Your task to perform on an android device: Add asus zenbook to the cart on bestbuy.com Image 0: 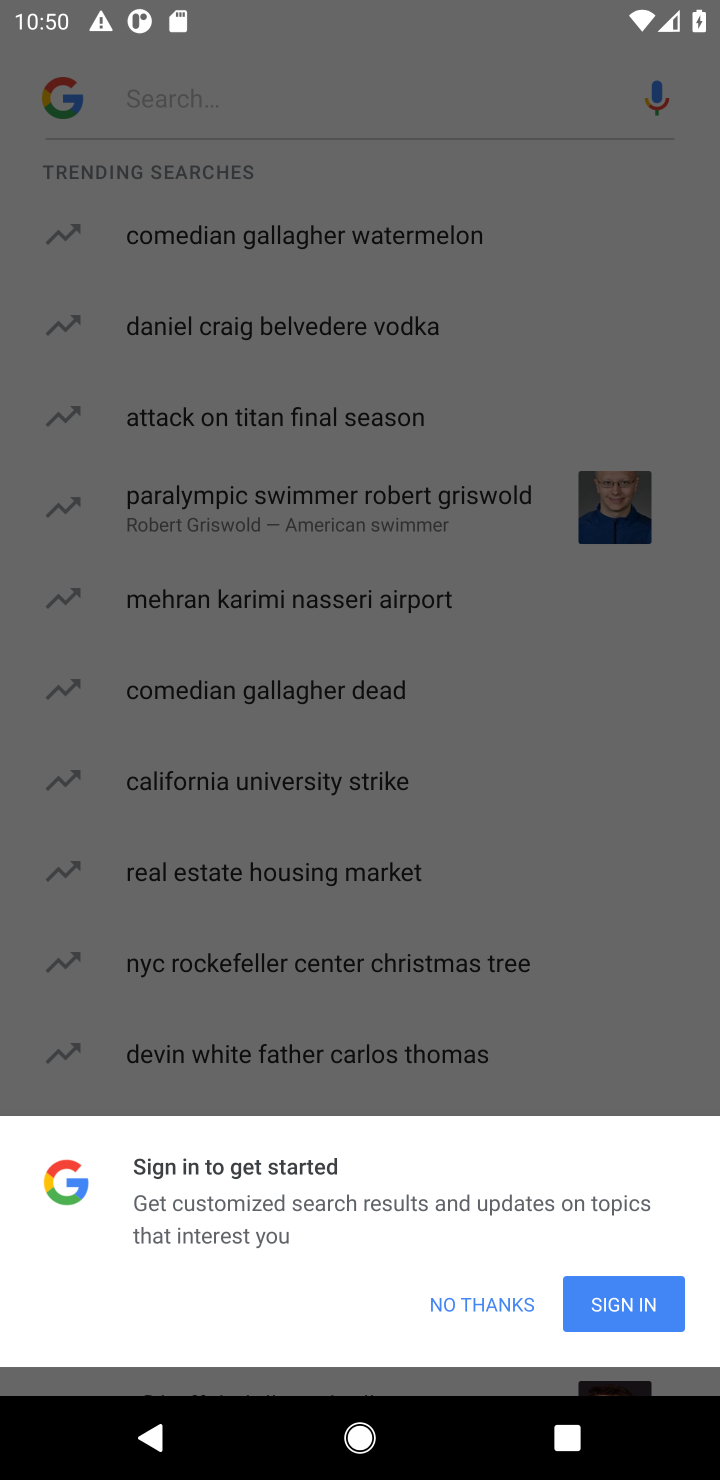
Step 0: press home button
Your task to perform on an android device: Add asus zenbook to the cart on bestbuy.com Image 1: 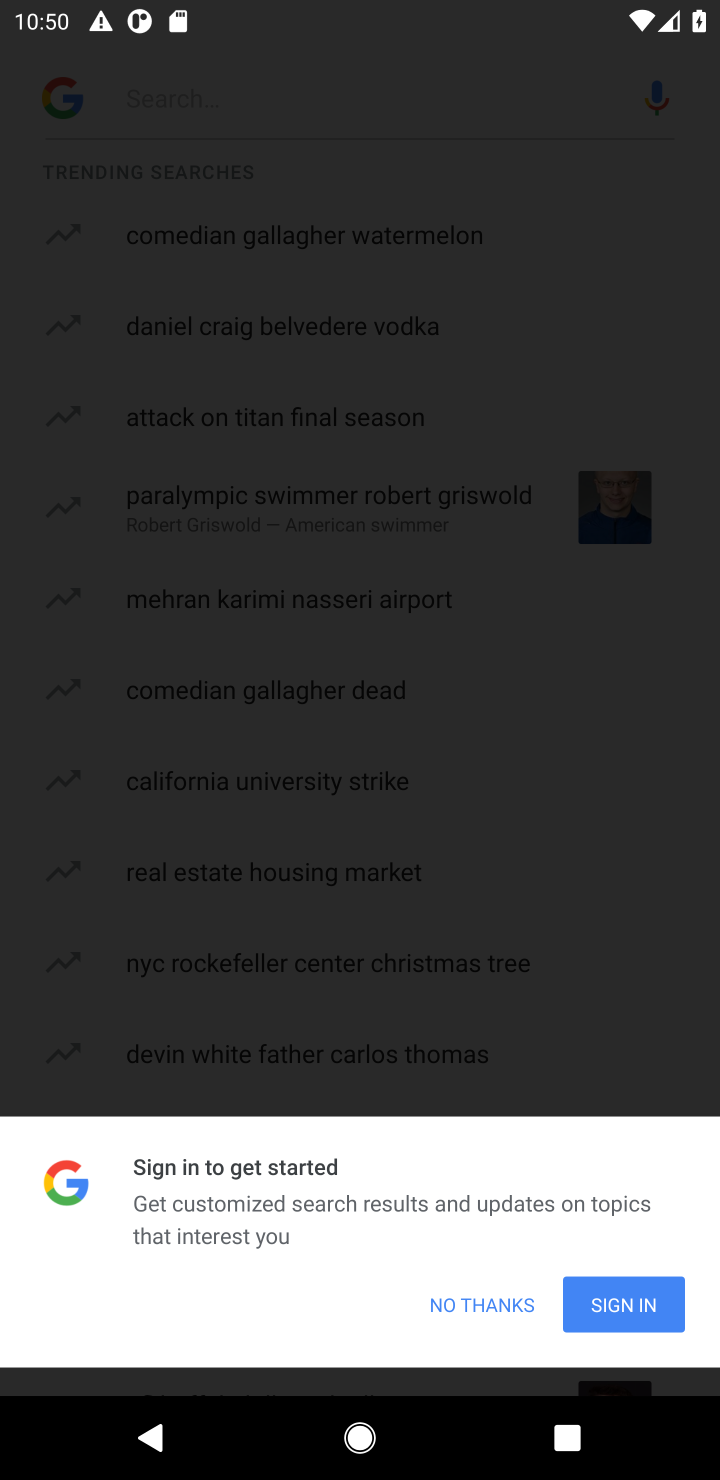
Step 1: press home button
Your task to perform on an android device: Add asus zenbook to the cart on bestbuy.com Image 2: 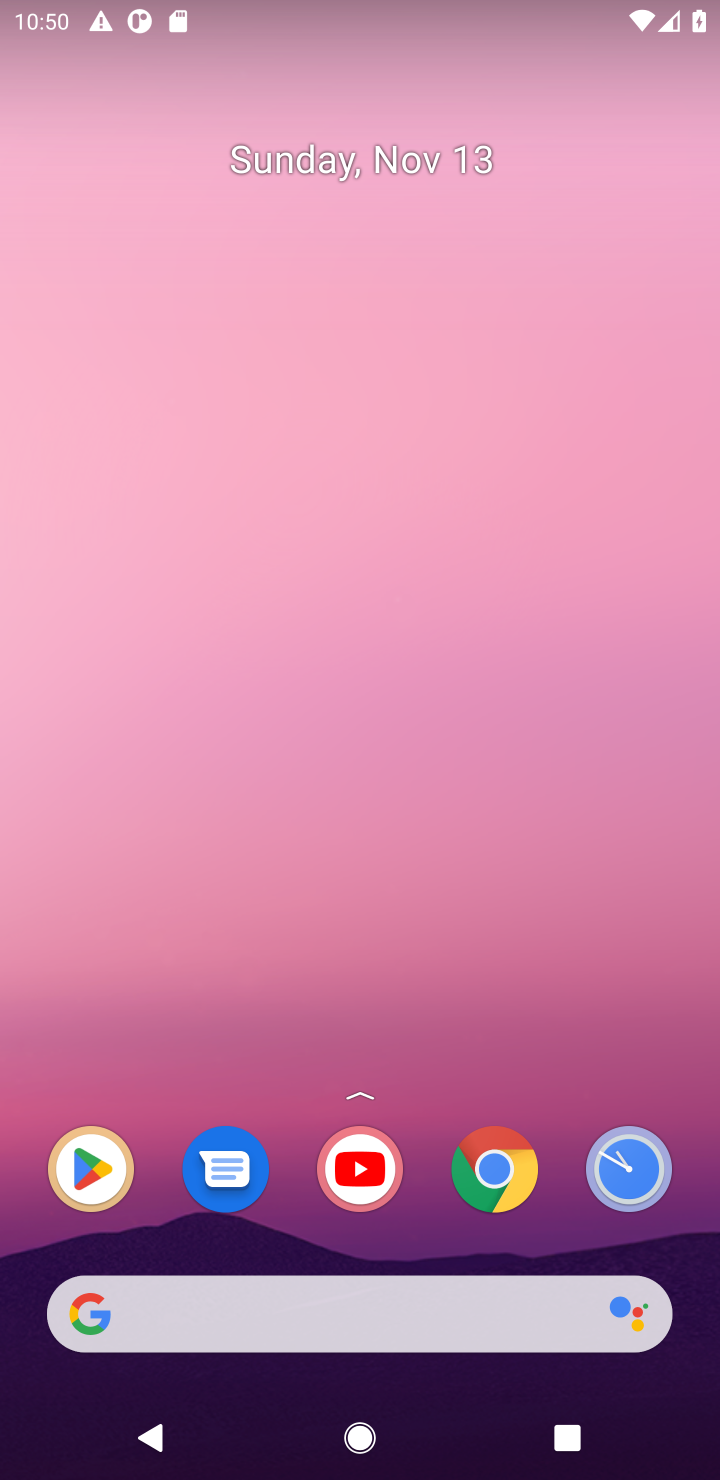
Step 2: drag from (429, 1244) to (357, 527)
Your task to perform on an android device: Add asus zenbook to the cart on bestbuy.com Image 3: 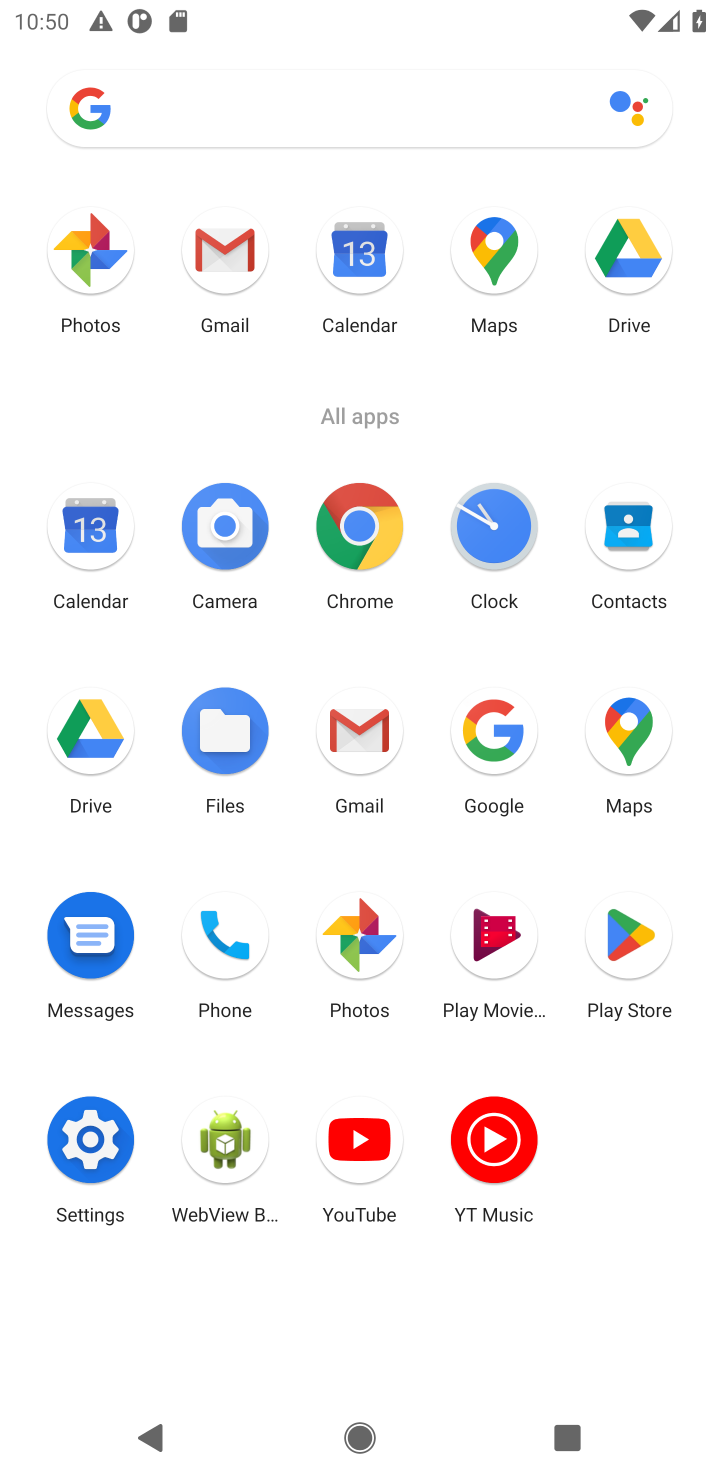
Step 3: click (365, 529)
Your task to perform on an android device: Add asus zenbook to the cart on bestbuy.com Image 4: 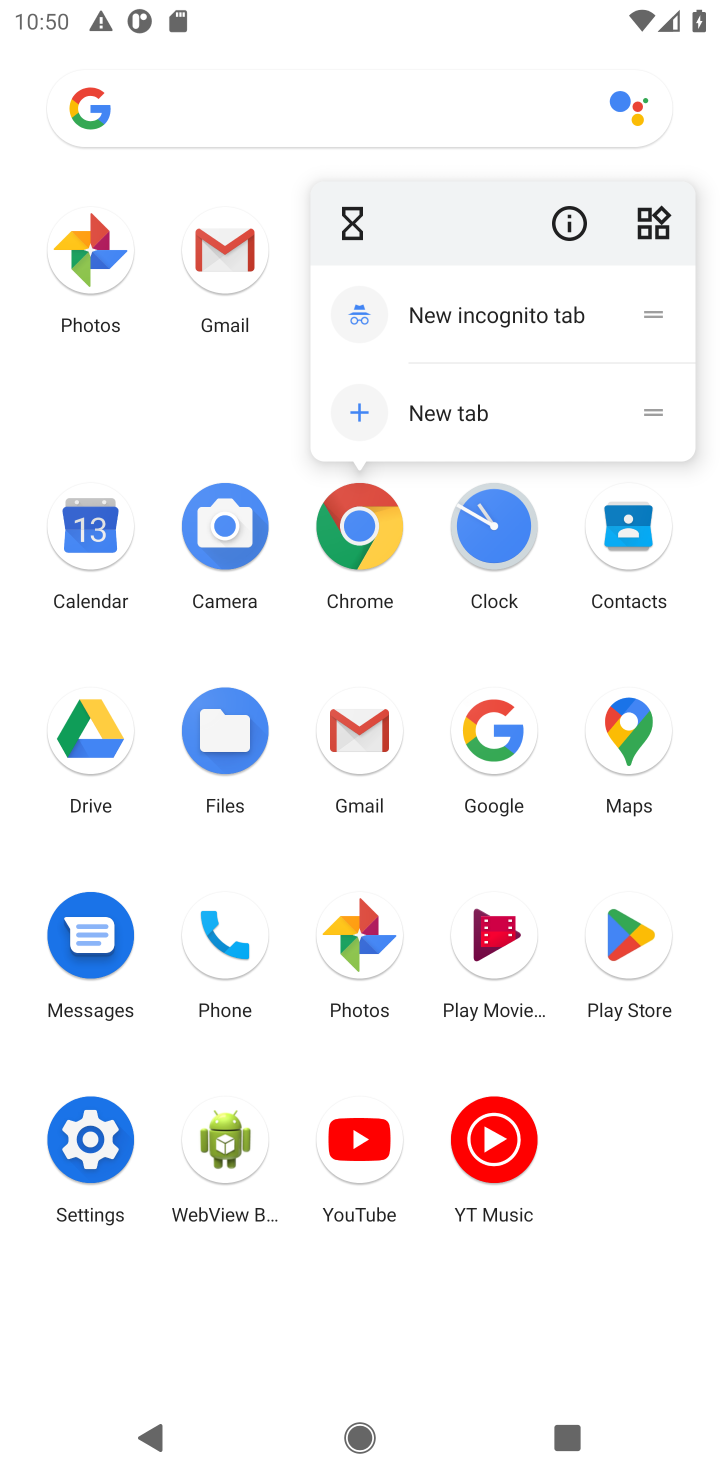
Step 4: click (360, 531)
Your task to perform on an android device: Add asus zenbook to the cart on bestbuy.com Image 5: 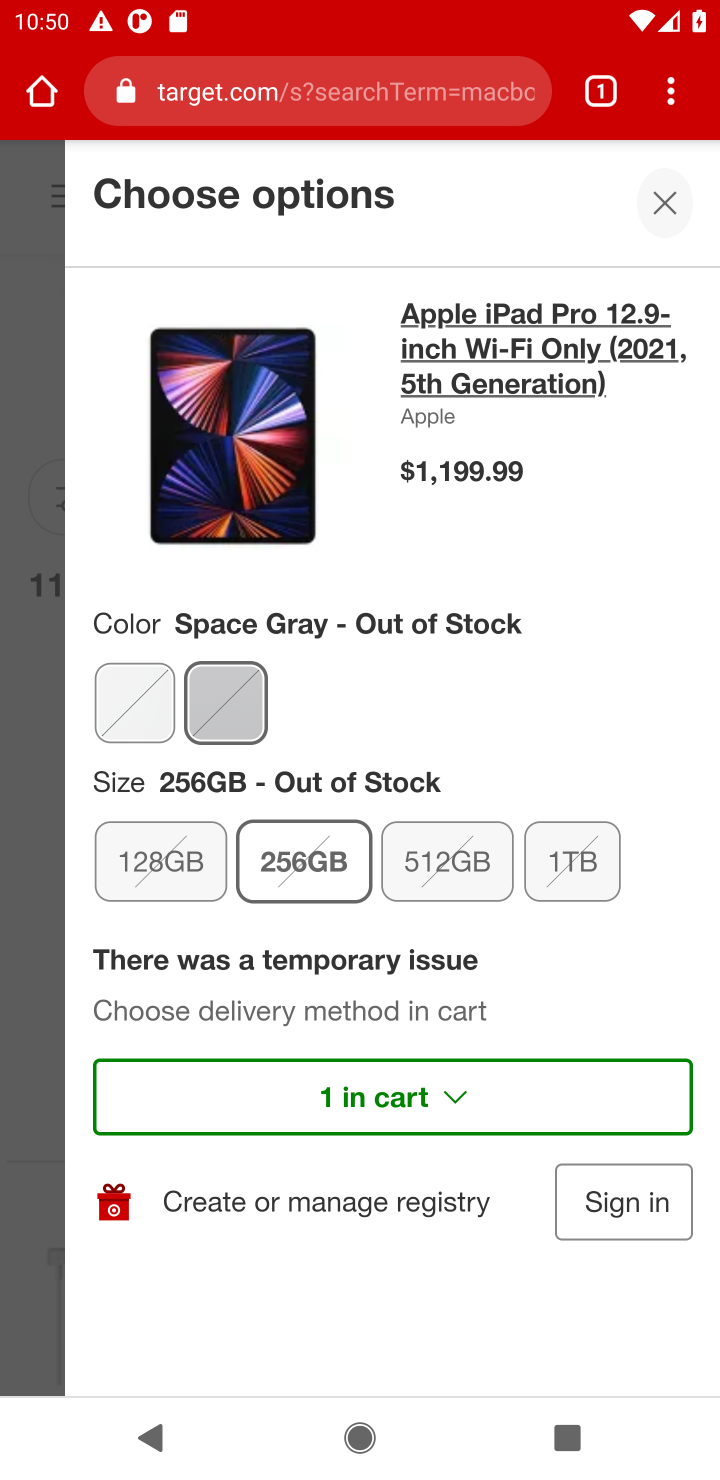
Step 5: click (366, 107)
Your task to perform on an android device: Add asus zenbook to the cart on bestbuy.com Image 6: 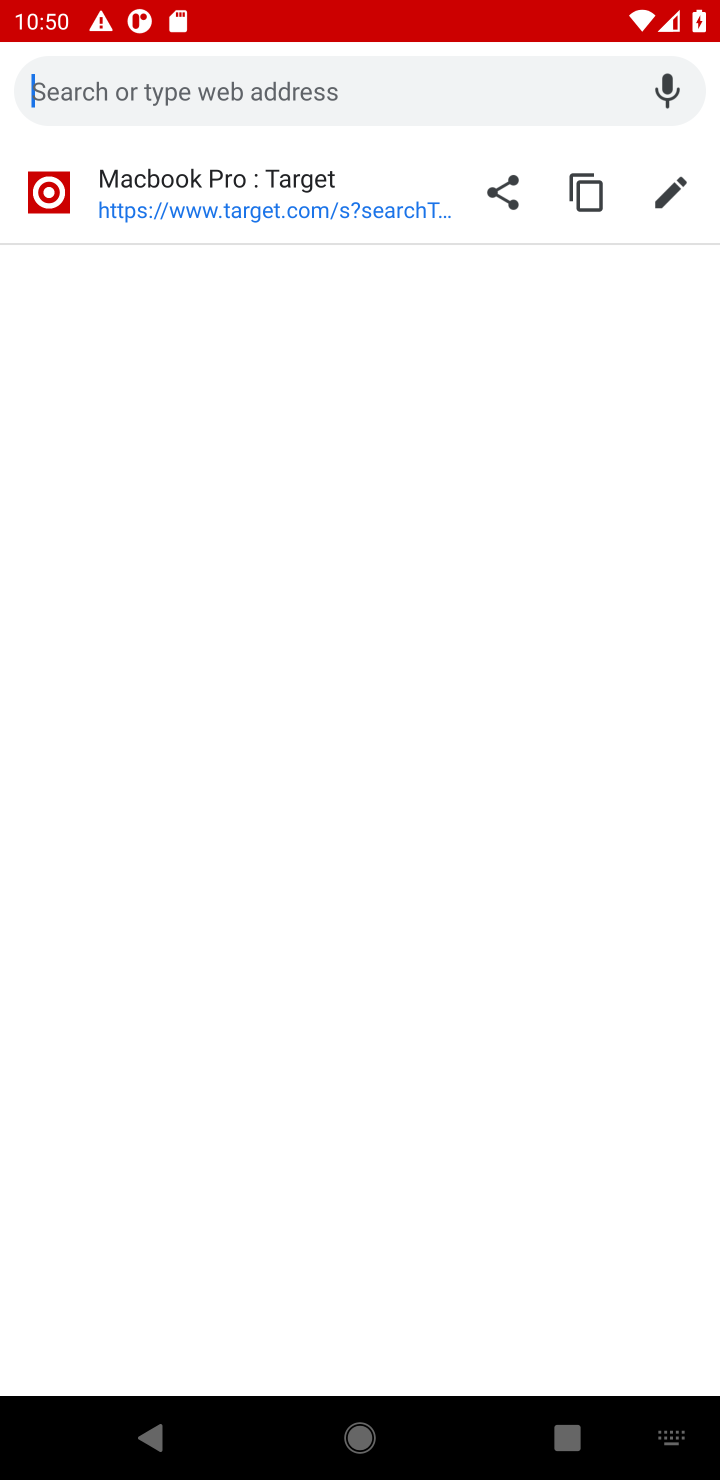
Step 6: type "bestbuy.com"
Your task to perform on an android device: Add asus zenbook to the cart on bestbuy.com Image 7: 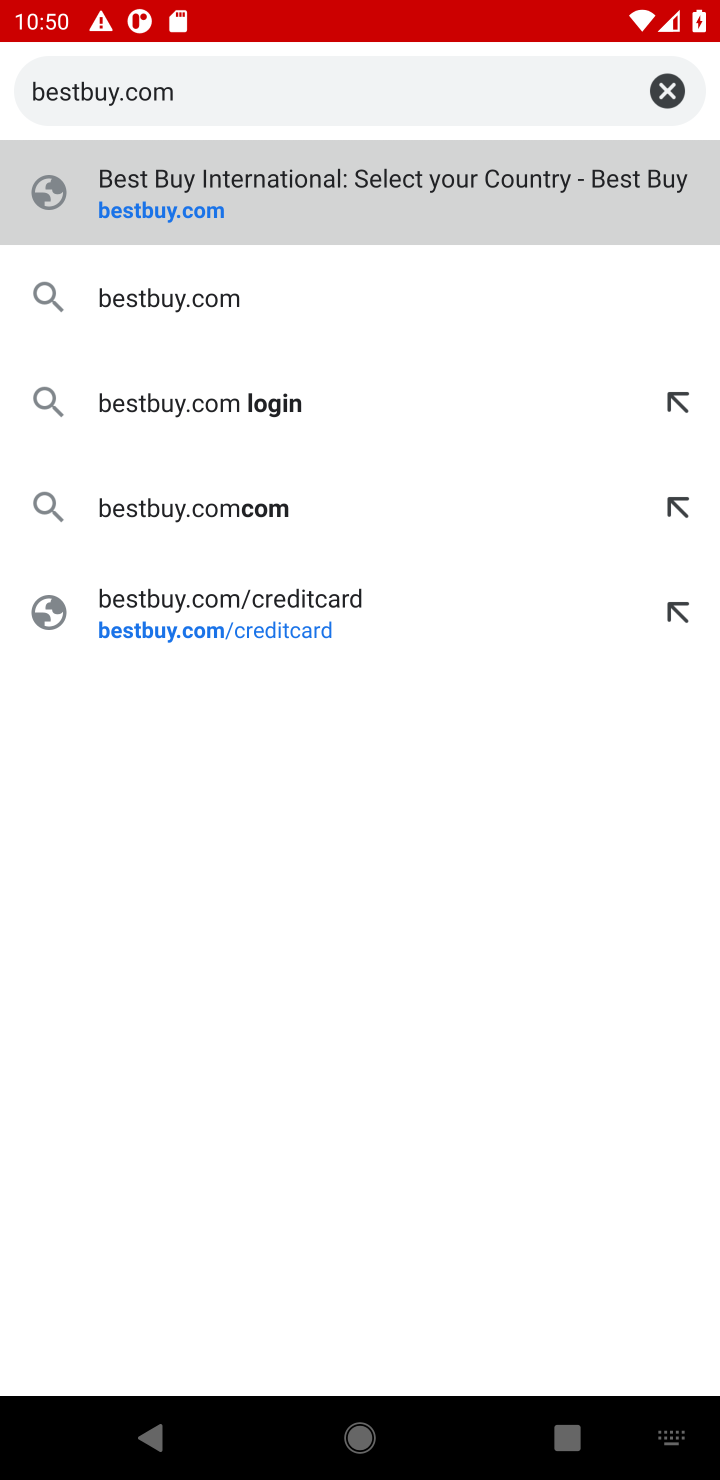
Step 7: press enter
Your task to perform on an android device: Add asus zenbook to the cart on bestbuy.com Image 8: 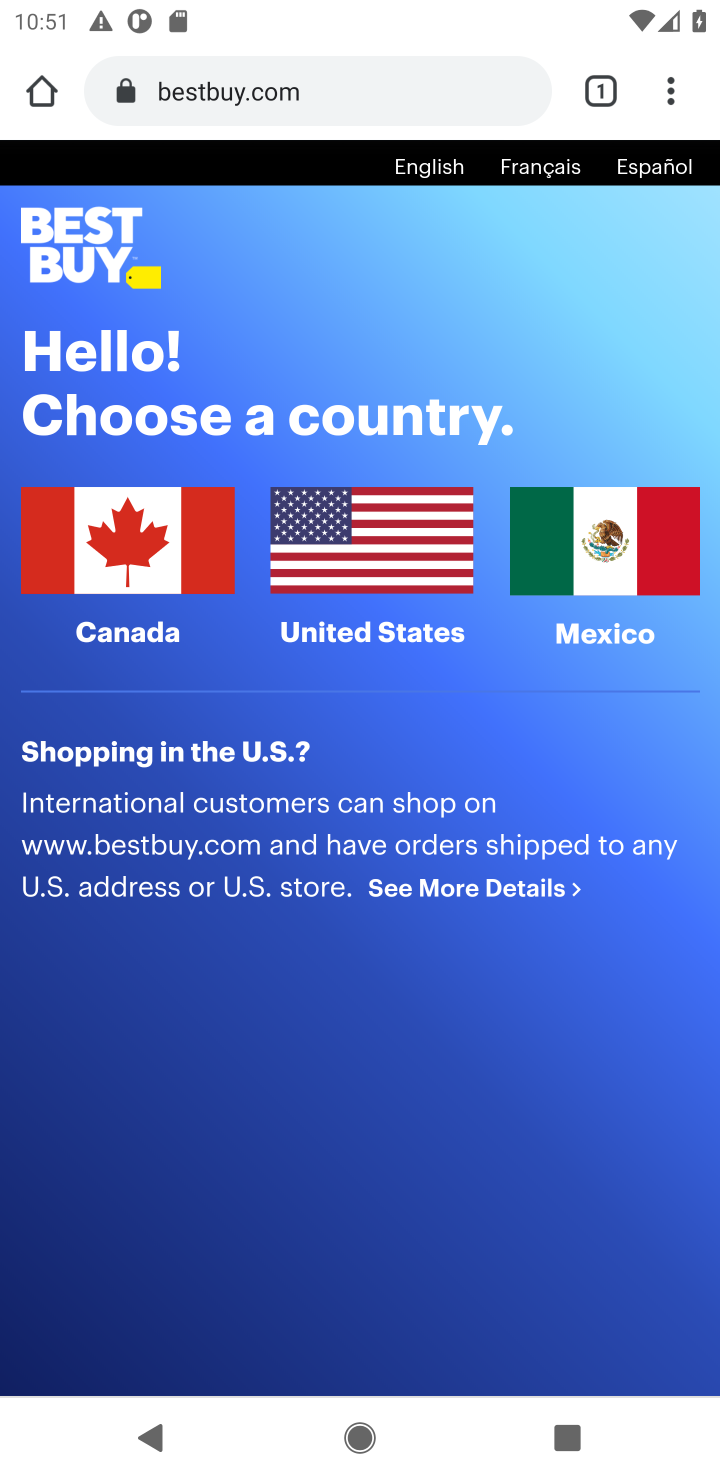
Step 8: click (73, 533)
Your task to perform on an android device: Add asus zenbook to the cart on bestbuy.com Image 9: 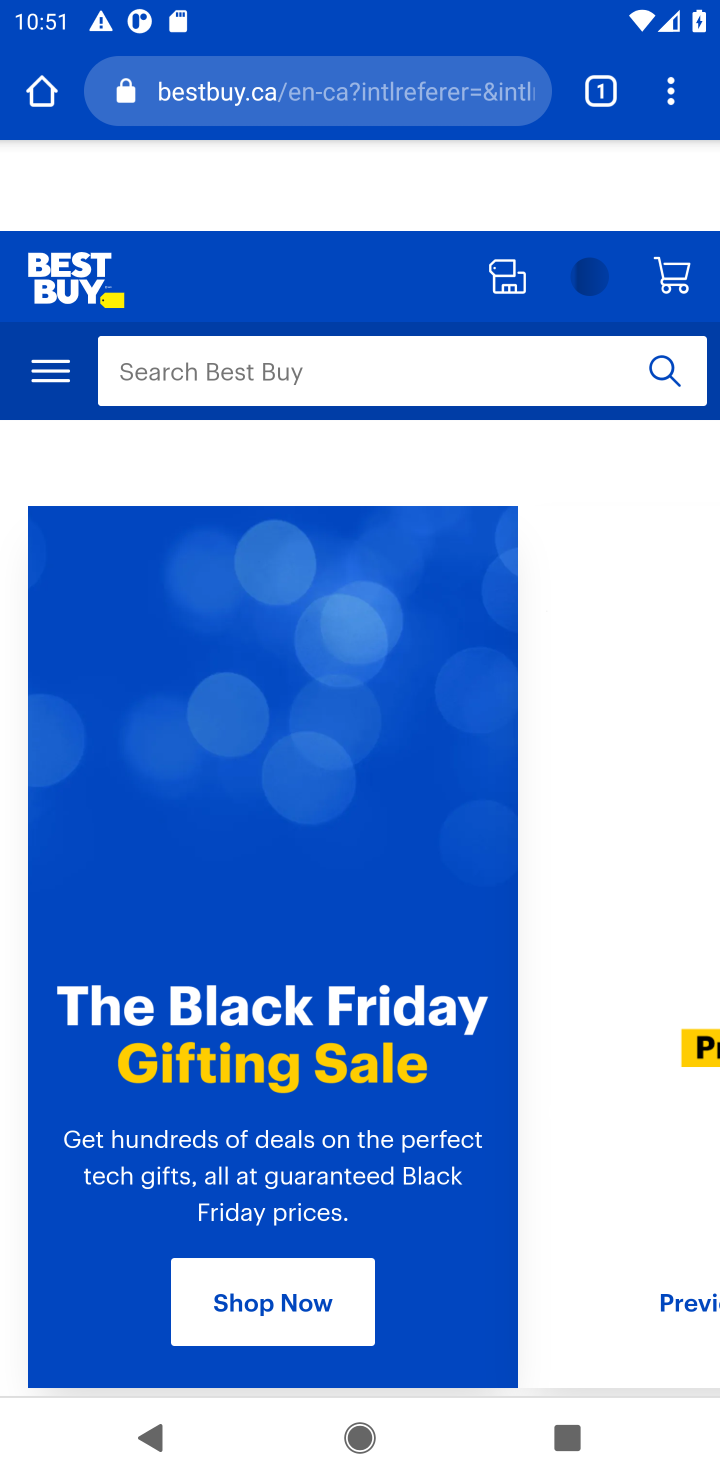
Step 9: click (390, 368)
Your task to perform on an android device: Add asus zenbook to the cart on bestbuy.com Image 10: 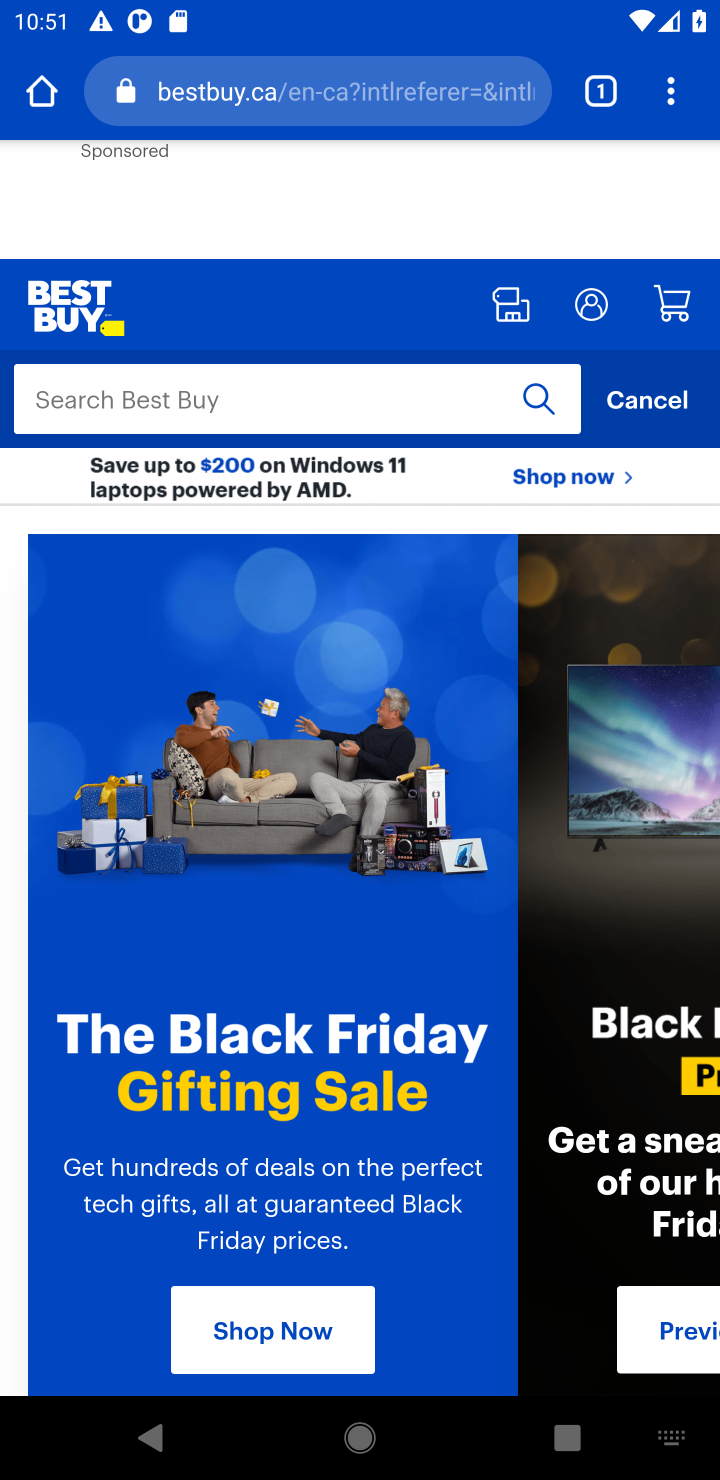
Step 10: type "asus zenbook"
Your task to perform on an android device: Add asus zenbook to the cart on bestbuy.com Image 11: 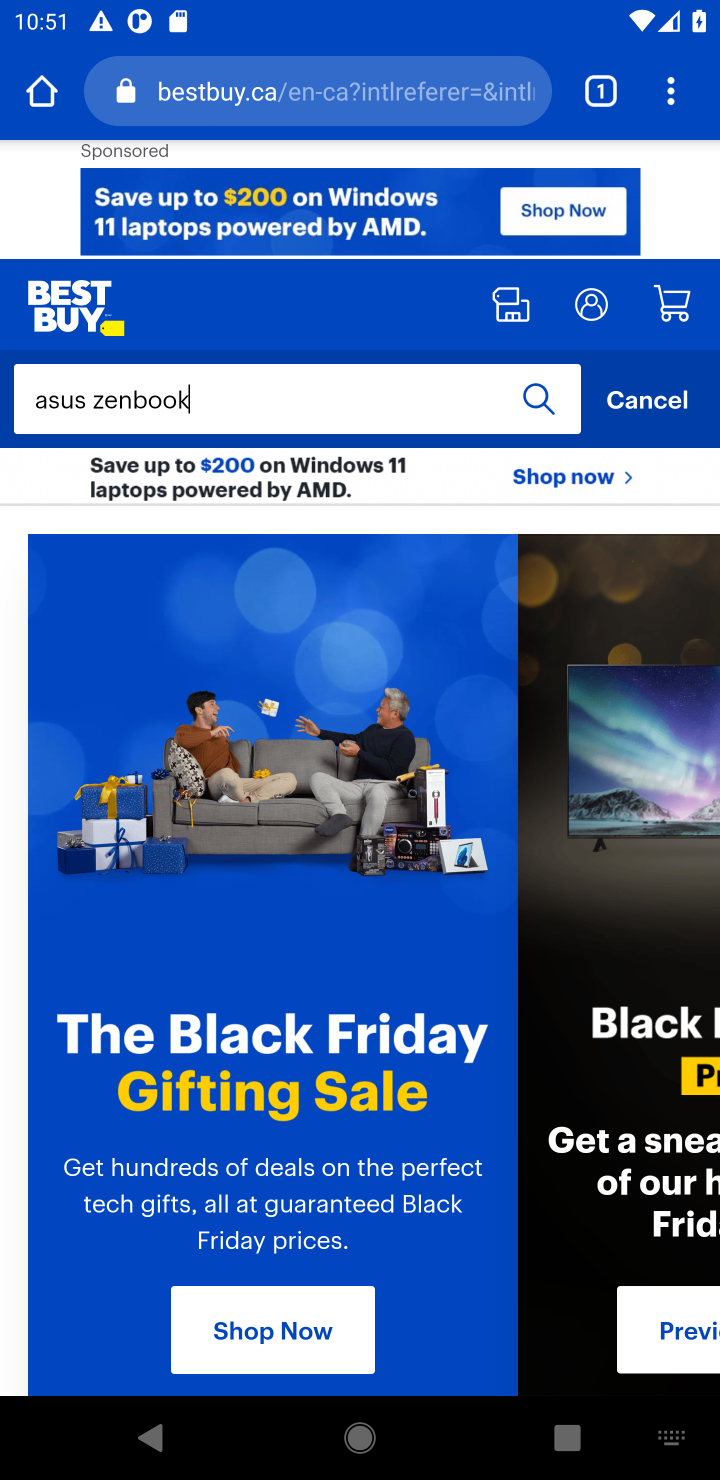
Step 11: press enter
Your task to perform on an android device: Add asus zenbook to the cart on bestbuy.com Image 12: 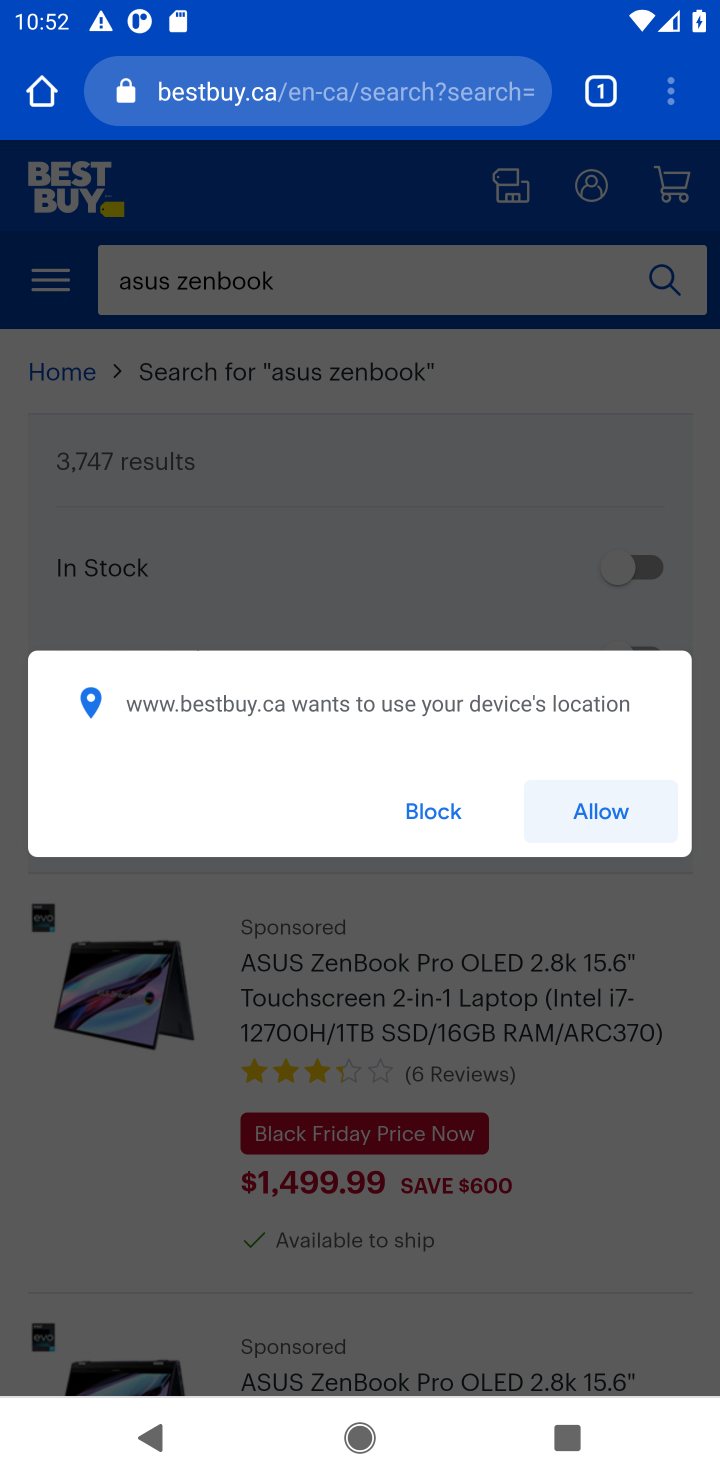
Step 12: click (443, 801)
Your task to perform on an android device: Add asus zenbook to the cart on bestbuy.com Image 13: 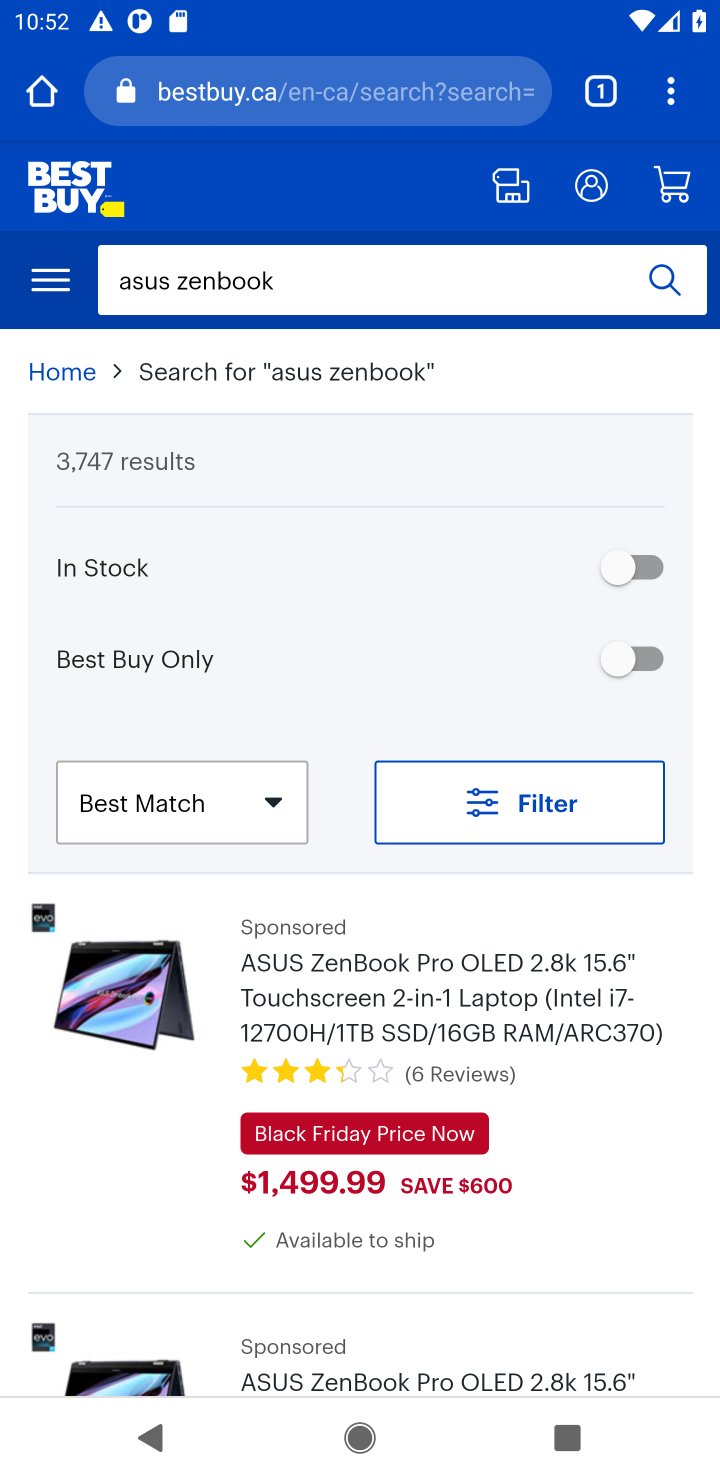
Step 13: drag from (541, 1189) to (473, 35)
Your task to perform on an android device: Add asus zenbook to the cart on bestbuy.com Image 14: 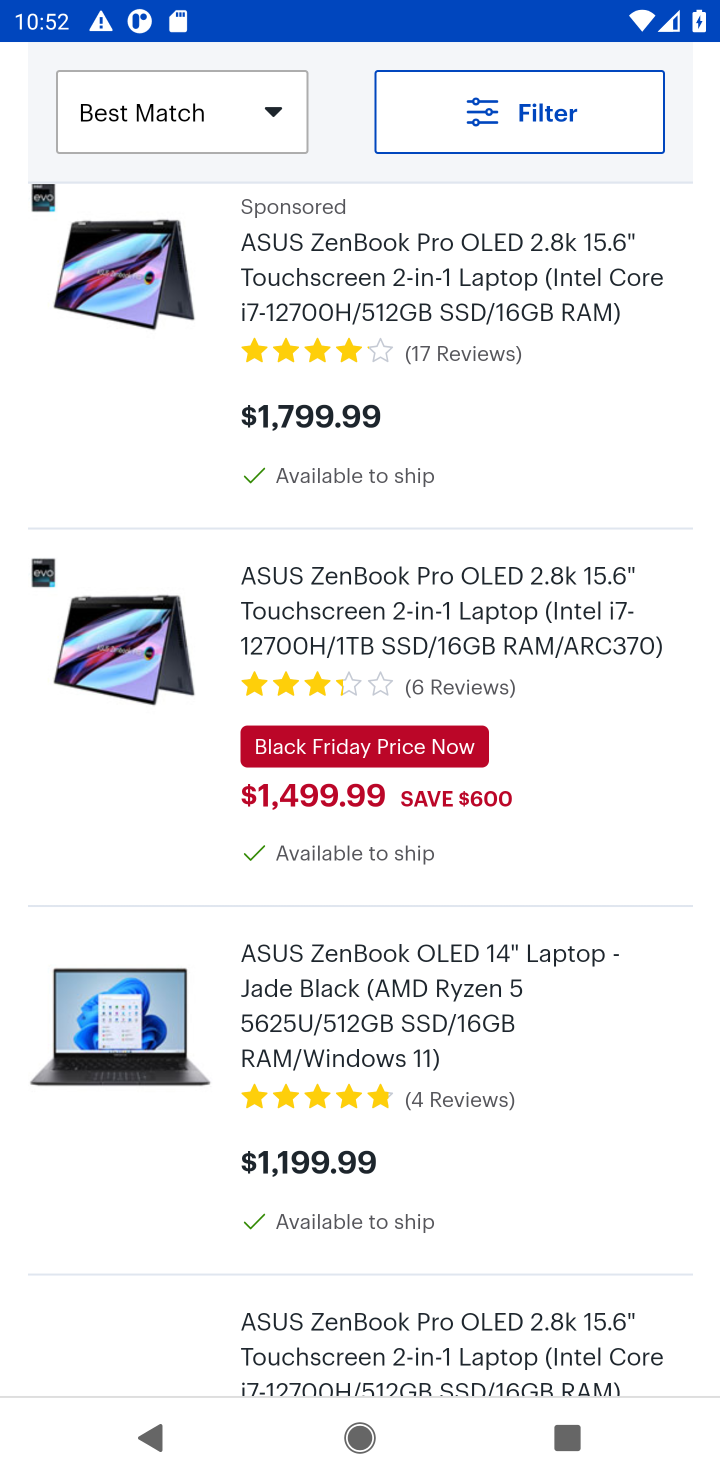
Step 14: click (457, 592)
Your task to perform on an android device: Add asus zenbook to the cart on bestbuy.com Image 15: 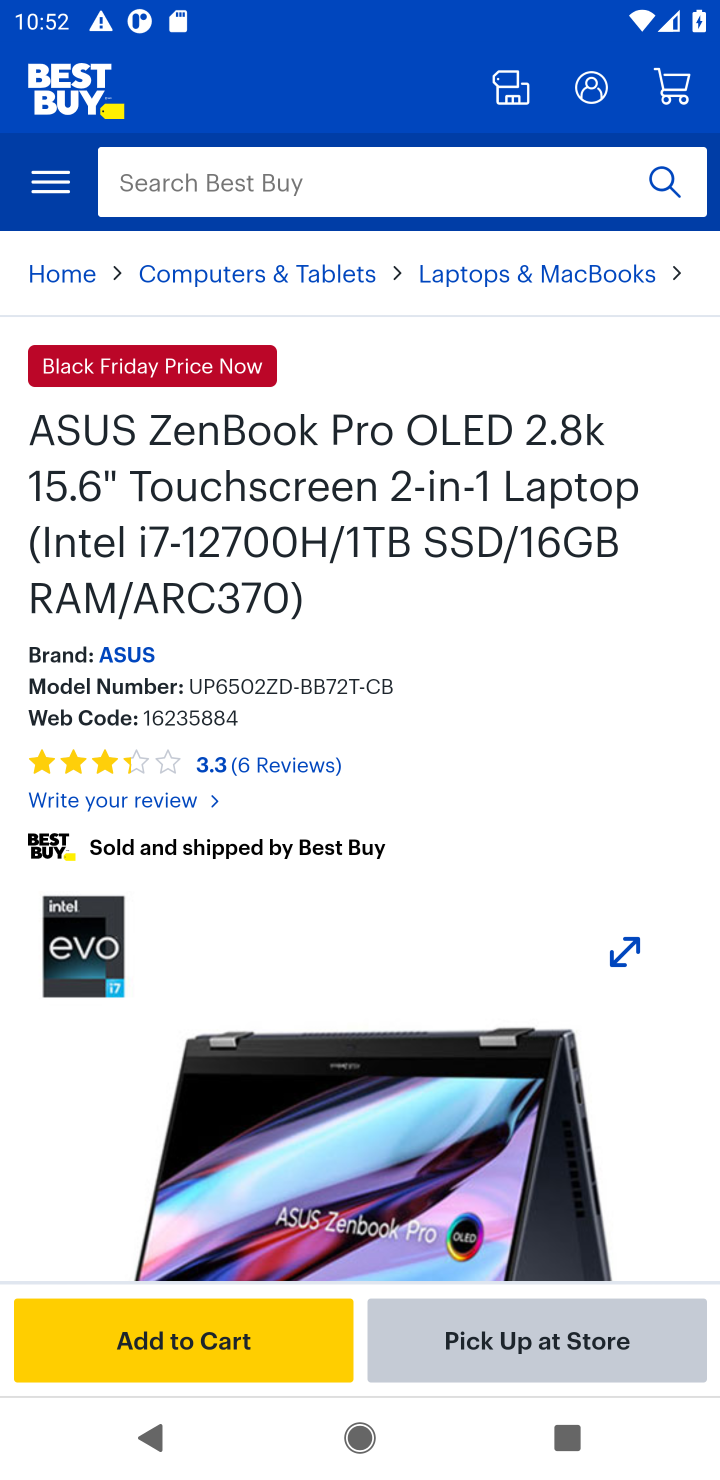
Step 15: click (246, 1346)
Your task to perform on an android device: Add asus zenbook to the cart on bestbuy.com Image 16: 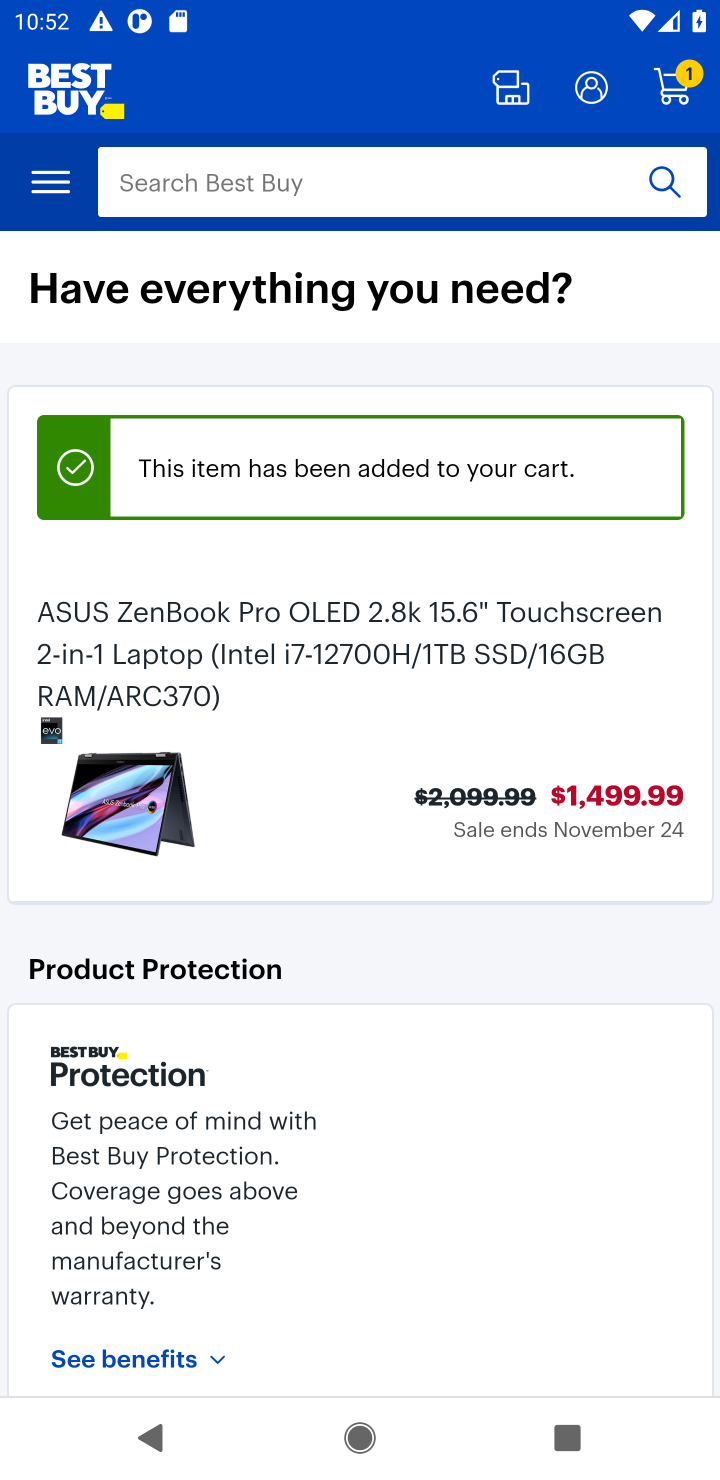
Step 16: task complete